Your task to perform on an android device: Go to Maps Image 0: 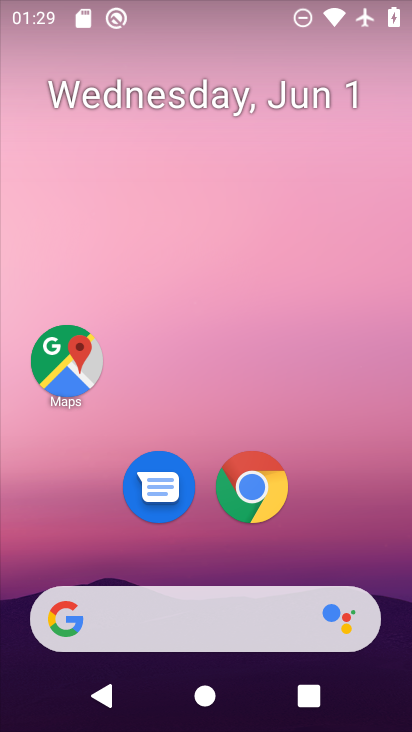
Step 0: click (72, 363)
Your task to perform on an android device: Go to Maps Image 1: 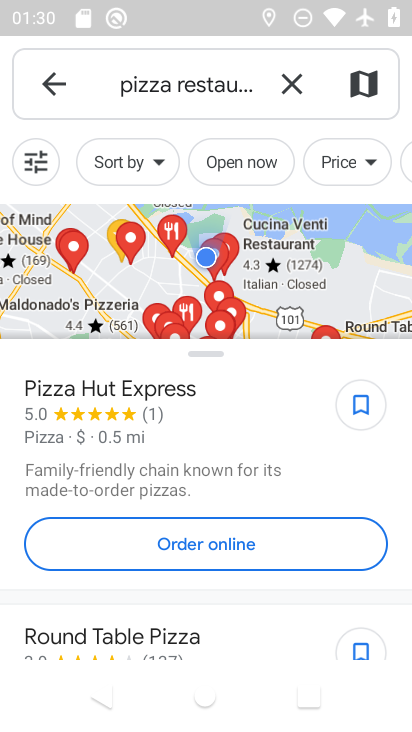
Step 1: click (273, 87)
Your task to perform on an android device: Go to Maps Image 2: 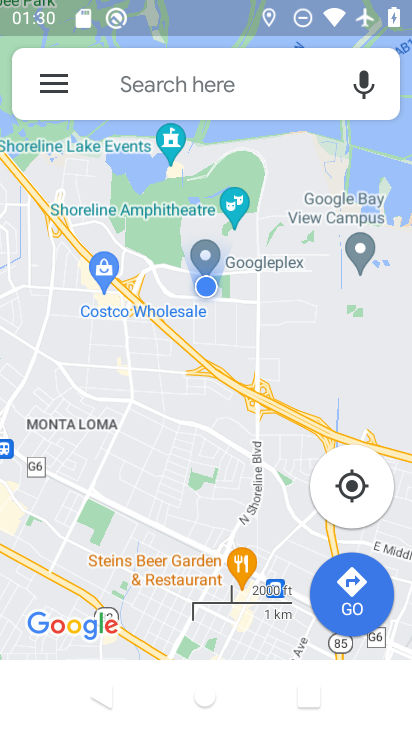
Step 2: task complete